Your task to perform on an android device: When is my next appointment? Image 0: 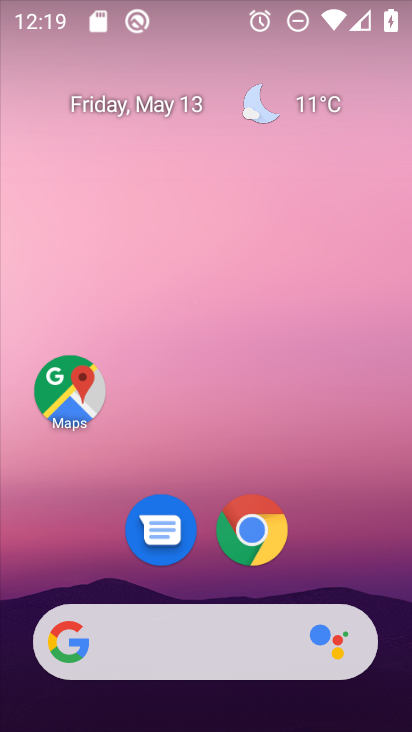
Step 0: press home button
Your task to perform on an android device: When is my next appointment? Image 1: 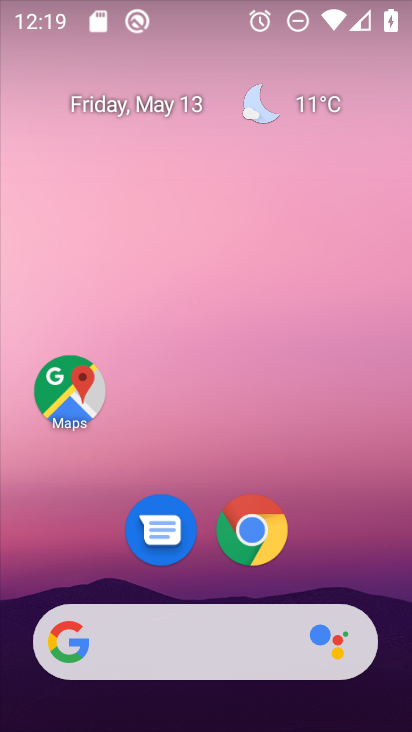
Step 1: drag from (163, 667) to (287, 129)
Your task to perform on an android device: When is my next appointment? Image 2: 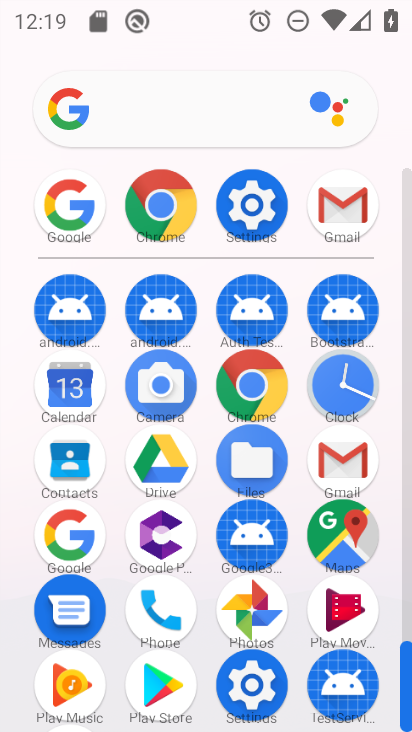
Step 2: click (83, 393)
Your task to perform on an android device: When is my next appointment? Image 3: 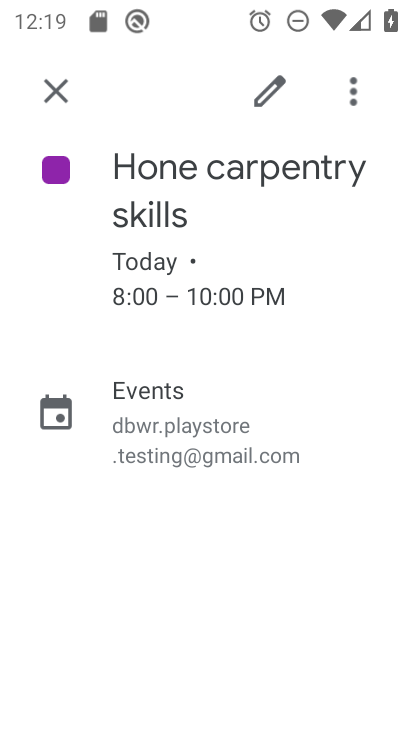
Step 3: click (65, 102)
Your task to perform on an android device: When is my next appointment? Image 4: 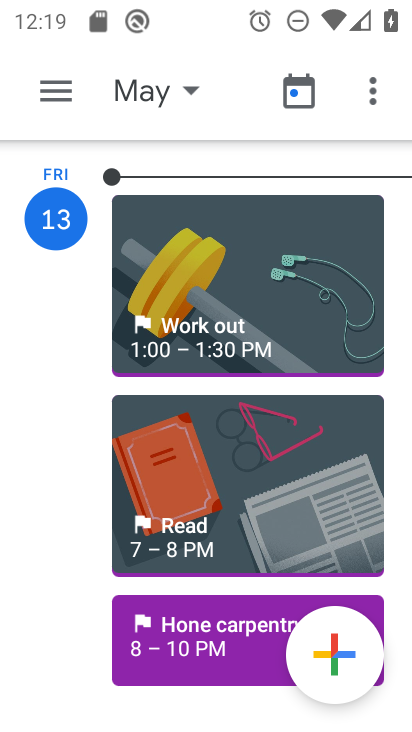
Step 4: click (129, 94)
Your task to perform on an android device: When is my next appointment? Image 5: 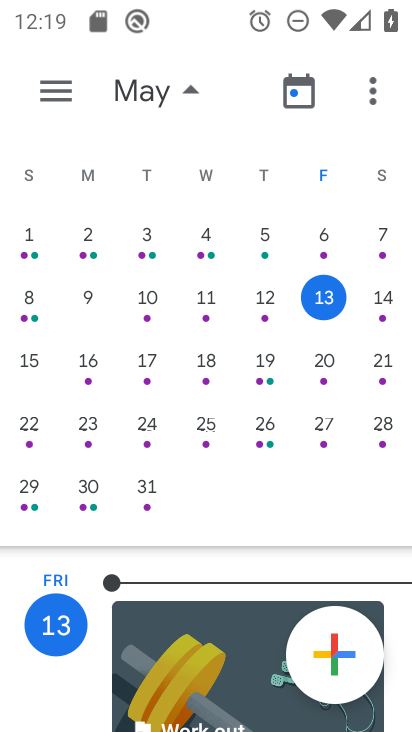
Step 5: click (330, 299)
Your task to perform on an android device: When is my next appointment? Image 6: 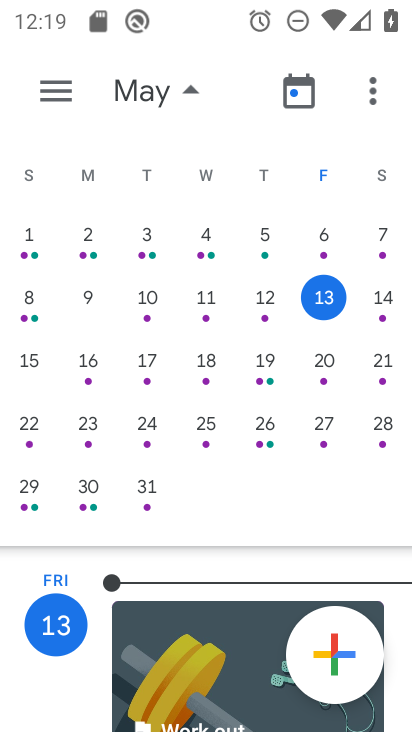
Step 6: click (70, 87)
Your task to perform on an android device: When is my next appointment? Image 7: 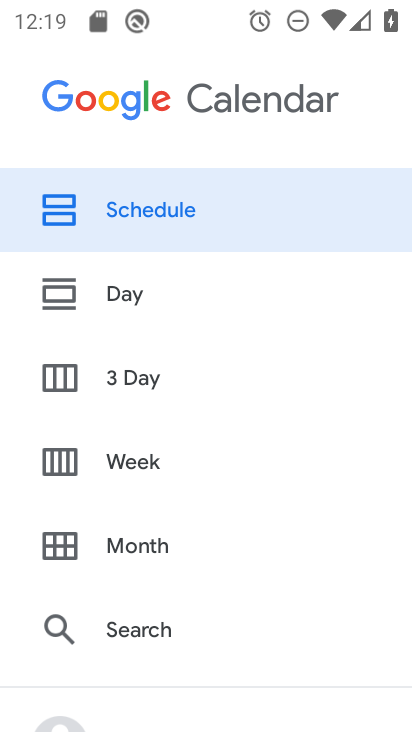
Step 7: click (145, 232)
Your task to perform on an android device: When is my next appointment? Image 8: 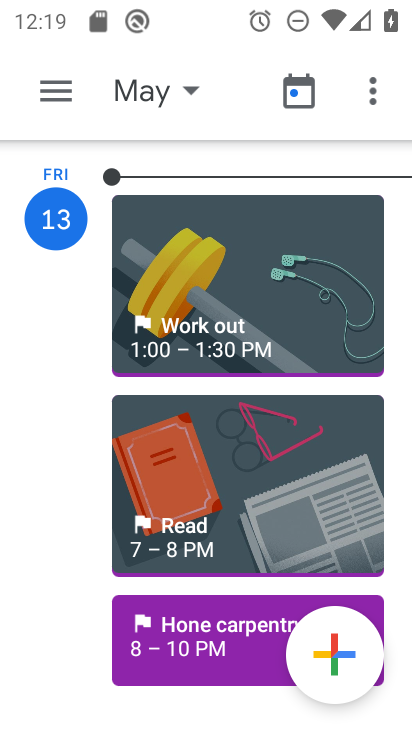
Step 8: task complete